Your task to perform on an android device: Do I have any events today? Image 0: 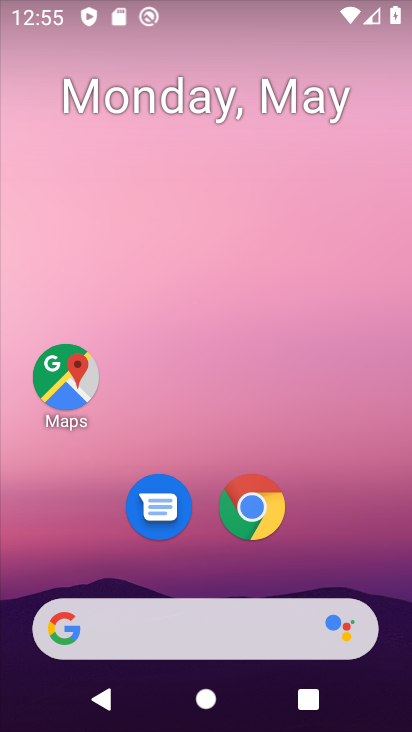
Step 0: drag from (224, 725) to (229, 126)
Your task to perform on an android device: Do I have any events today? Image 1: 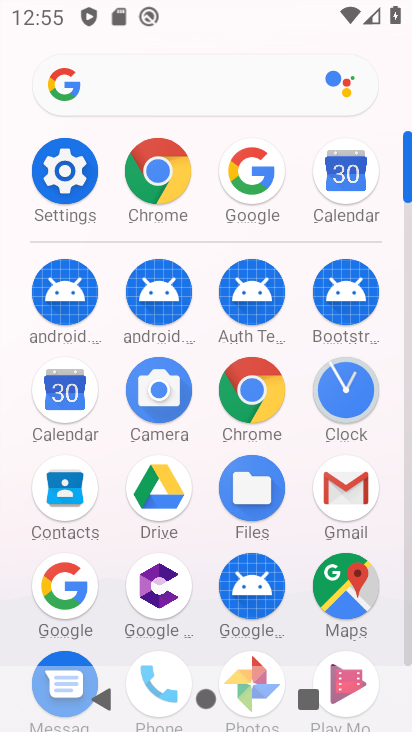
Step 1: click (69, 482)
Your task to perform on an android device: Do I have any events today? Image 2: 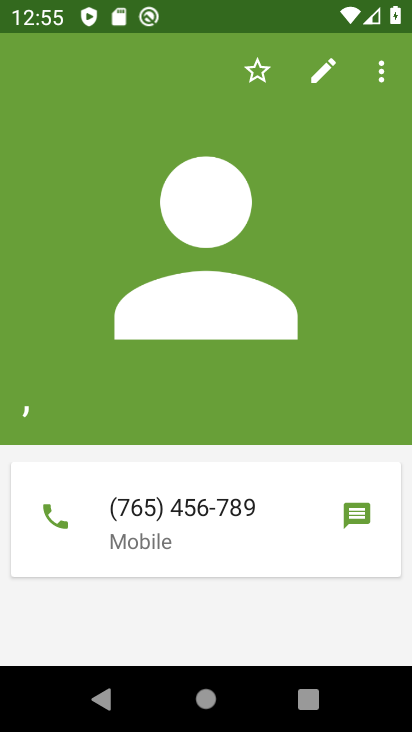
Step 2: press home button
Your task to perform on an android device: Do I have any events today? Image 3: 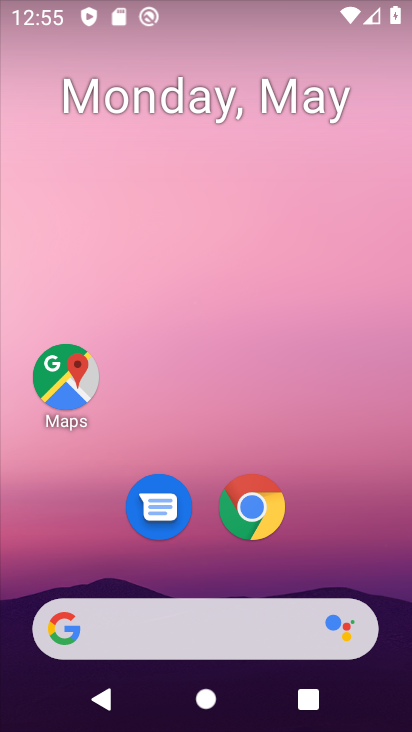
Step 3: drag from (255, 699) to (259, 143)
Your task to perform on an android device: Do I have any events today? Image 4: 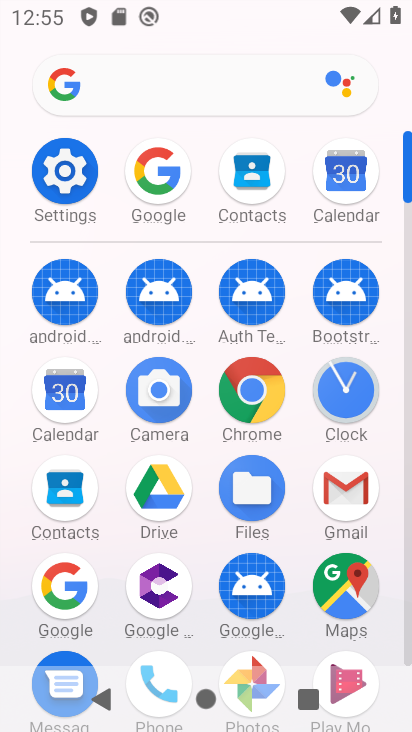
Step 4: click (68, 403)
Your task to perform on an android device: Do I have any events today? Image 5: 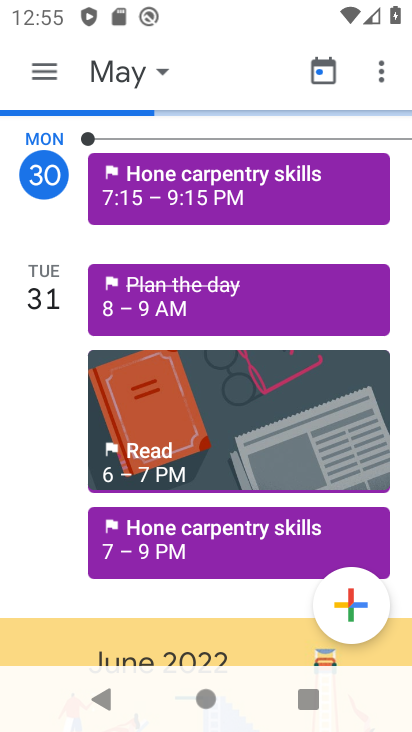
Step 5: task complete